Your task to perform on an android device: manage bookmarks in the chrome app Image 0: 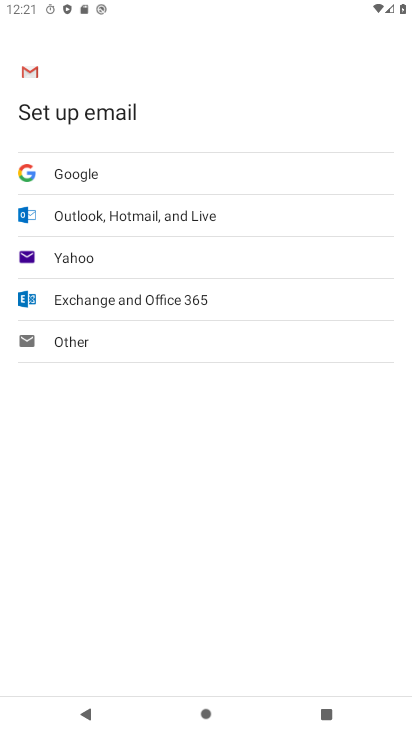
Step 0: press home button
Your task to perform on an android device: manage bookmarks in the chrome app Image 1: 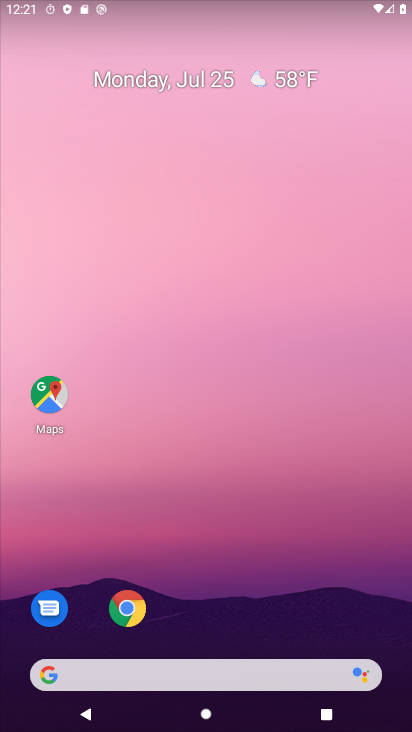
Step 1: drag from (329, 587) to (312, 77)
Your task to perform on an android device: manage bookmarks in the chrome app Image 2: 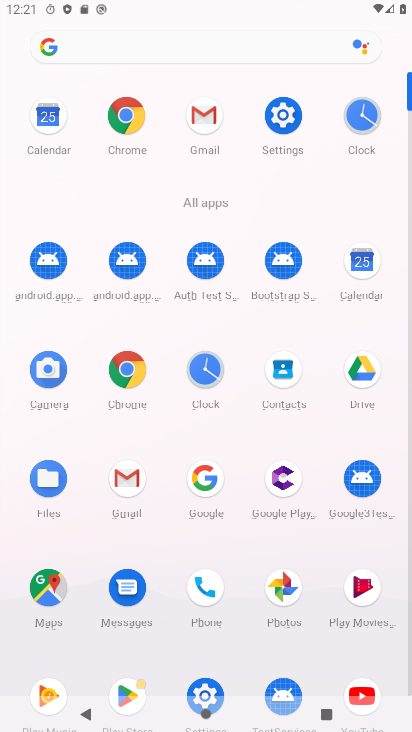
Step 2: click (125, 112)
Your task to perform on an android device: manage bookmarks in the chrome app Image 3: 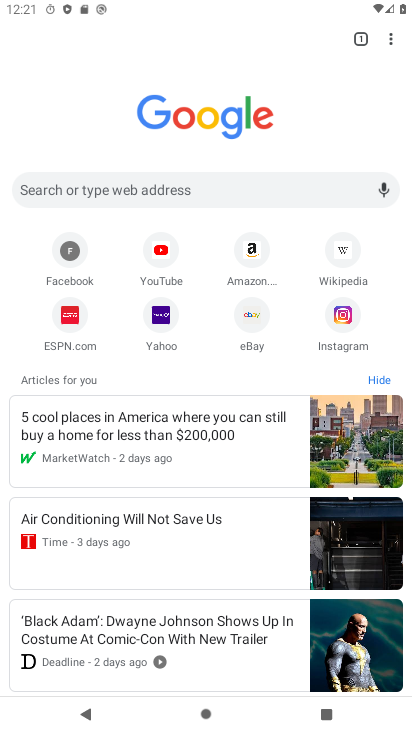
Step 3: drag from (391, 30) to (286, 141)
Your task to perform on an android device: manage bookmarks in the chrome app Image 4: 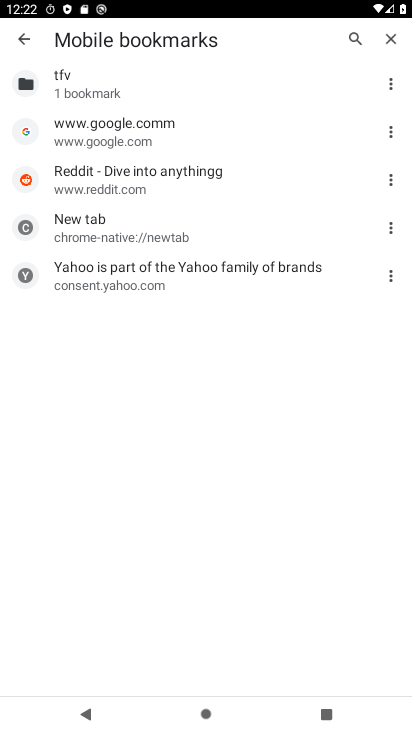
Step 4: click (392, 179)
Your task to perform on an android device: manage bookmarks in the chrome app Image 5: 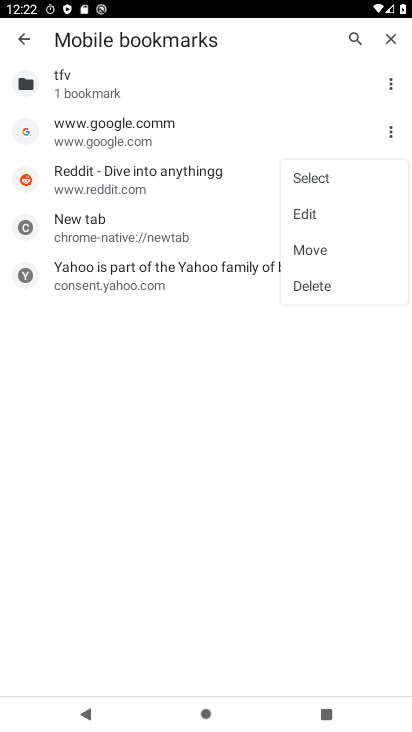
Step 5: click (320, 220)
Your task to perform on an android device: manage bookmarks in the chrome app Image 6: 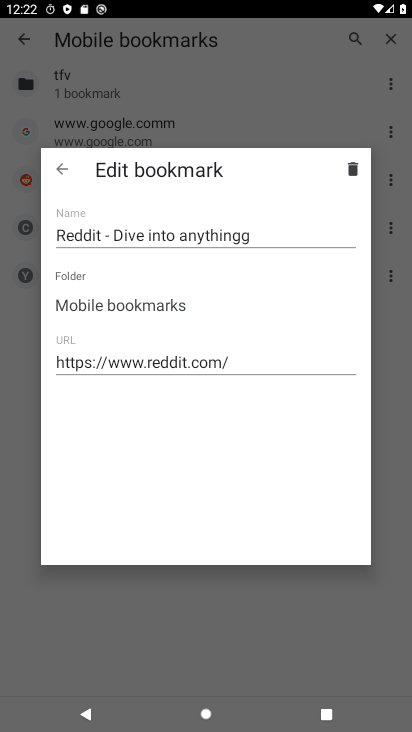
Step 6: click (279, 233)
Your task to perform on an android device: manage bookmarks in the chrome app Image 7: 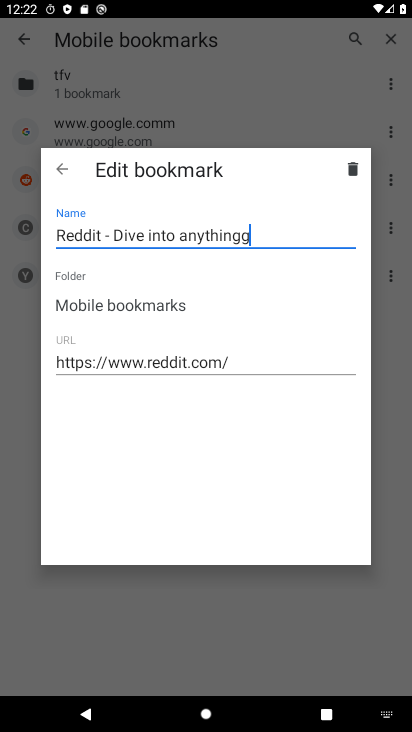
Step 7: drag from (274, 234) to (192, 229)
Your task to perform on an android device: manage bookmarks in the chrome app Image 8: 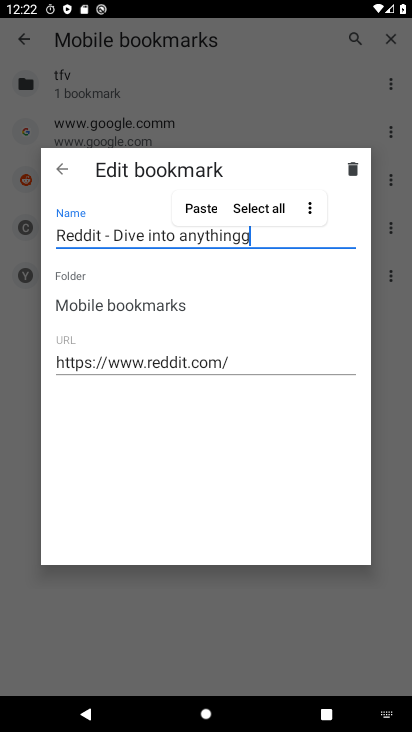
Step 8: type "ll"
Your task to perform on an android device: manage bookmarks in the chrome app Image 9: 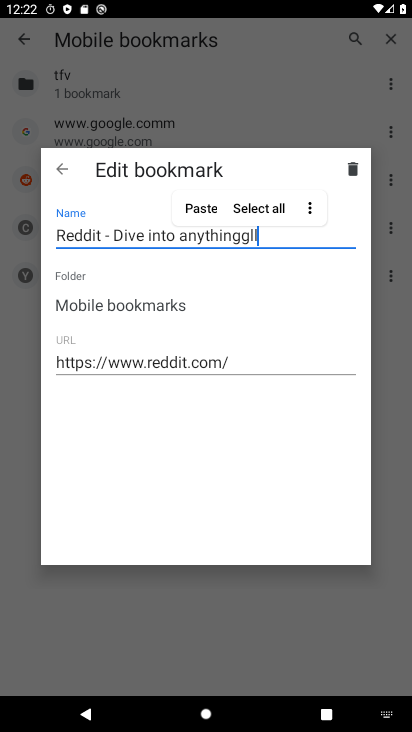
Step 9: type ""
Your task to perform on an android device: manage bookmarks in the chrome app Image 10: 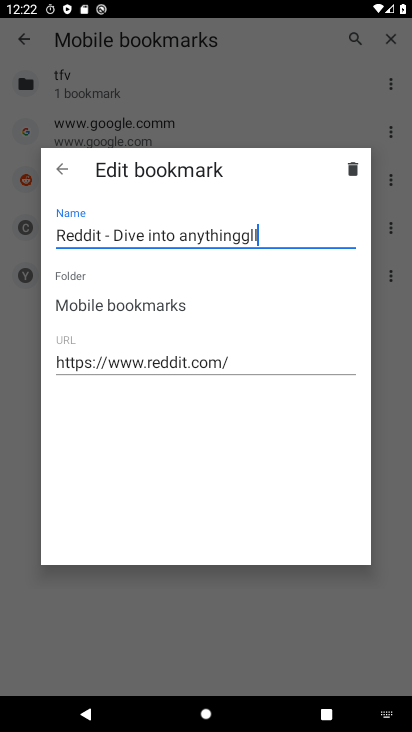
Step 10: click (65, 178)
Your task to perform on an android device: manage bookmarks in the chrome app Image 11: 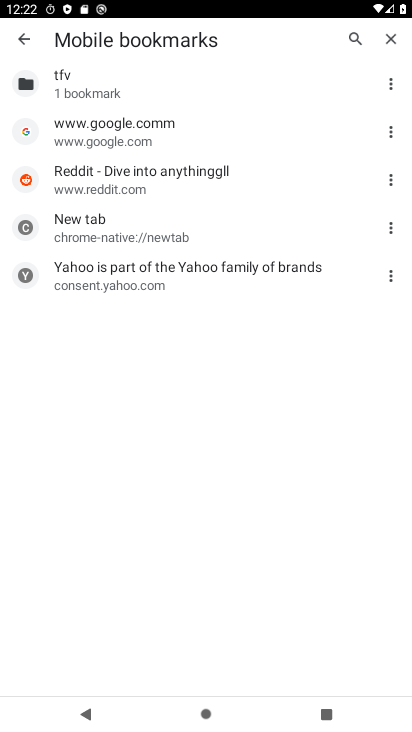
Step 11: task complete